Your task to perform on an android device: turn on notifications settings in the gmail app Image 0: 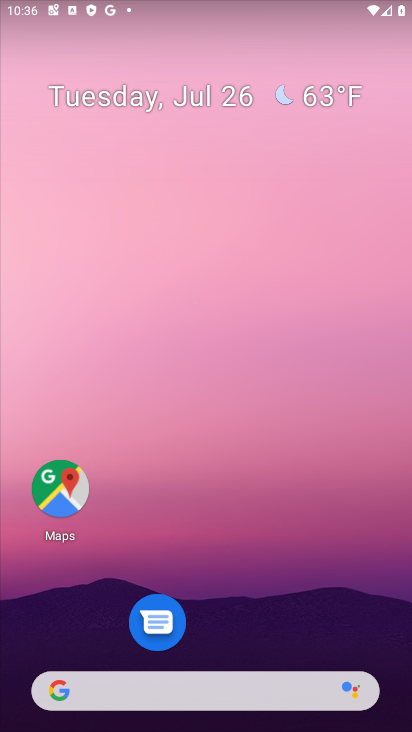
Step 0: drag from (248, 647) to (330, 165)
Your task to perform on an android device: turn on notifications settings in the gmail app Image 1: 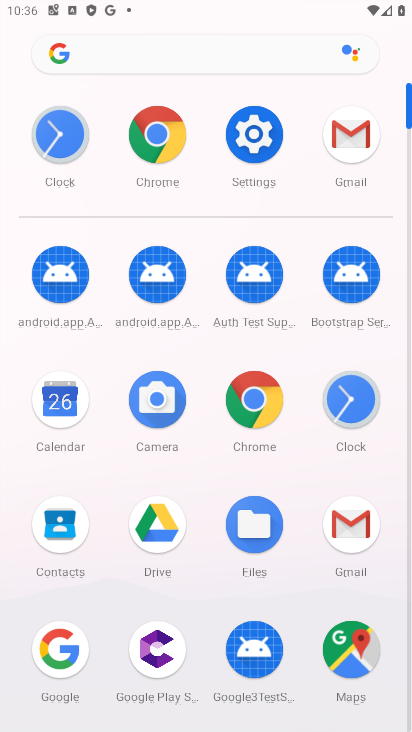
Step 1: click (356, 164)
Your task to perform on an android device: turn on notifications settings in the gmail app Image 2: 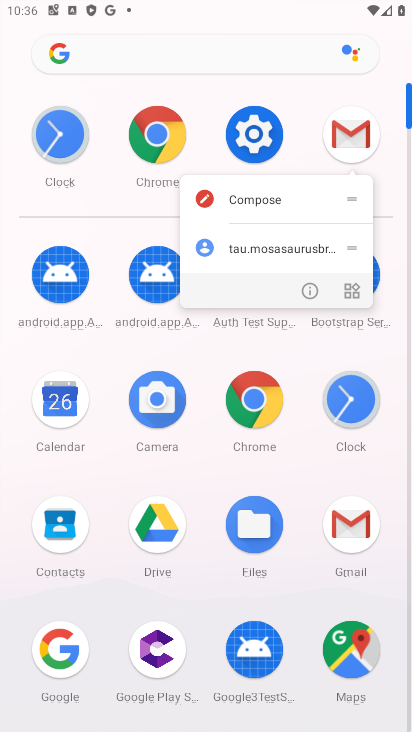
Step 2: click (353, 163)
Your task to perform on an android device: turn on notifications settings in the gmail app Image 3: 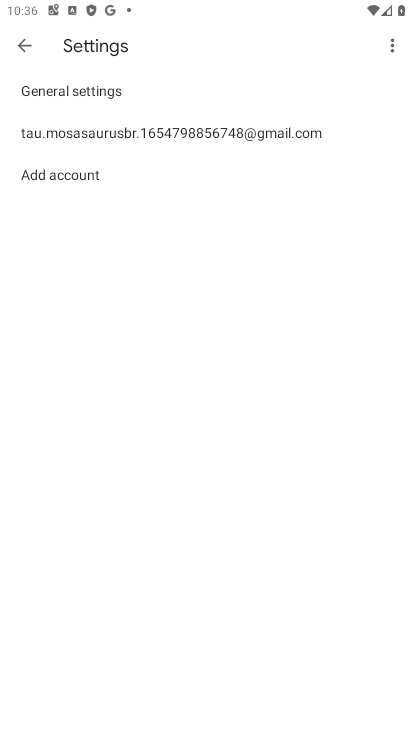
Step 3: click (93, 131)
Your task to perform on an android device: turn on notifications settings in the gmail app Image 4: 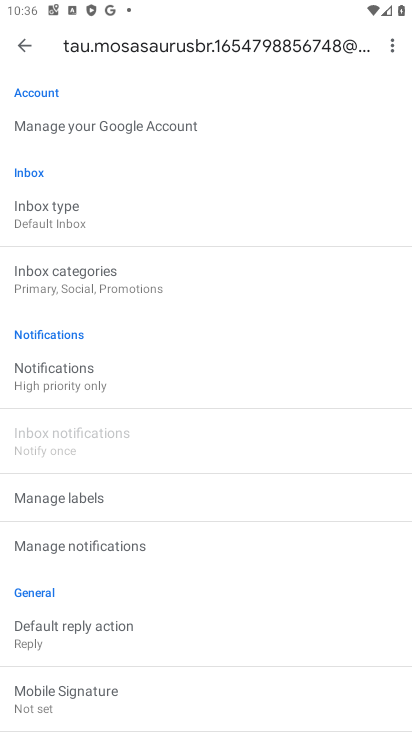
Step 4: drag from (58, 287) to (87, 606)
Your task to perform on an android device: turn on notifications settings in the gmail app Image 5: 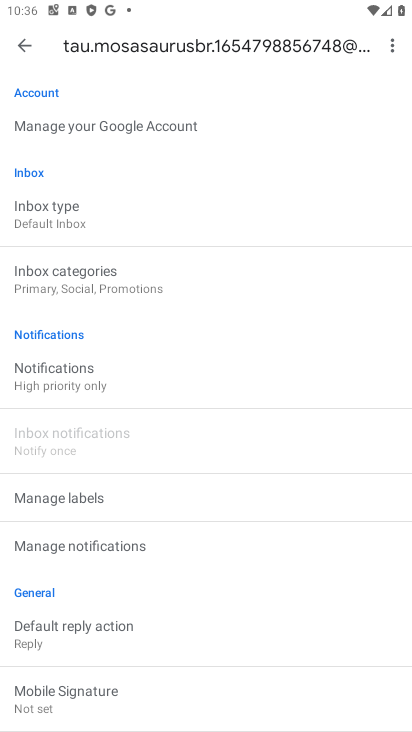
Step 5: click (57, 366)
Your task to perform on an android device: turn on notifications settings in the gmail app Image 6: 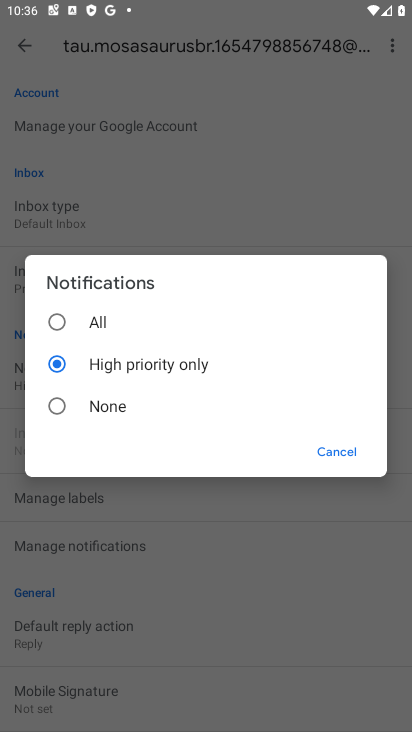
Step 6: click (66, 309)
Your task to perform on an android device: turn on notifications settings in the gmail app Image 7: 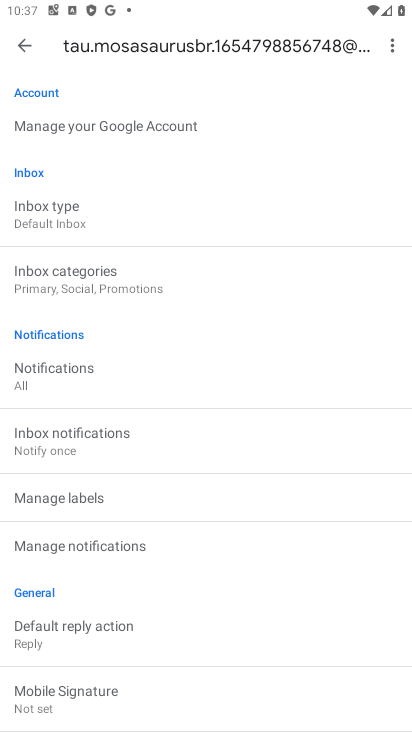
Step 7: task complete